Your task to perform on an android device: Add apple airpods to the cart on costco, then select checkout. Image 0: 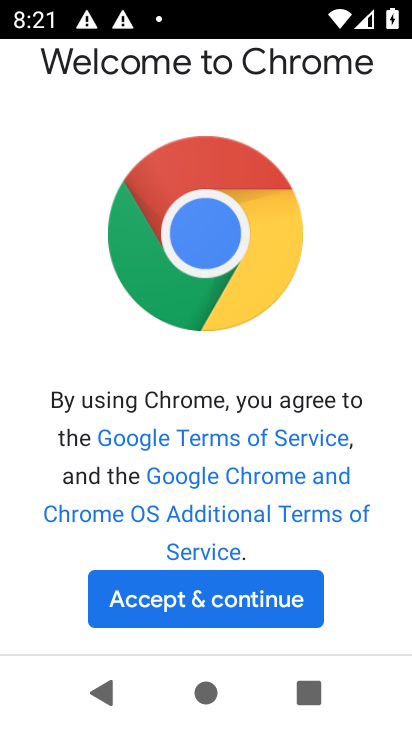
Step 0: click (287, 595)
Your task to perform on an android device: Add apple airpods to the cart on costco, then select checkout. Image 1: 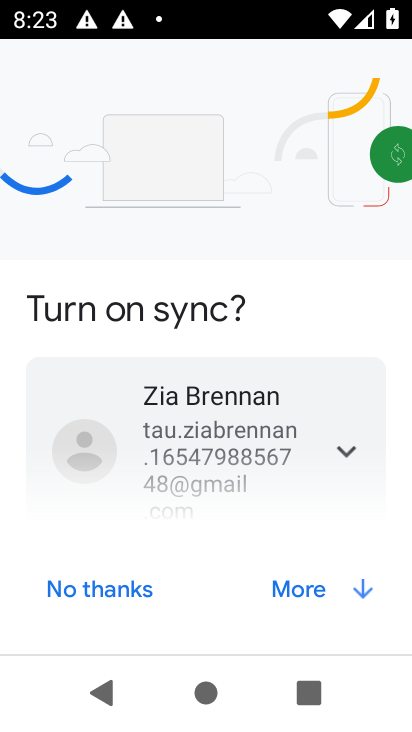
Step 1: click (102, 596)
Your task to perform on an android device: Add apple airpods to the cart on costco, then select checkout. Image 2: 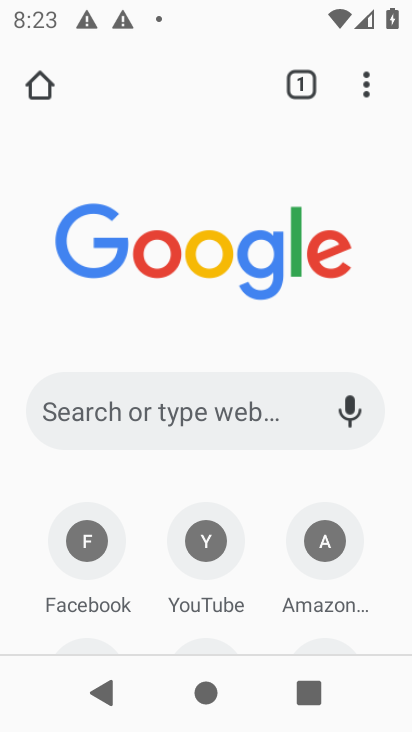
Step 2: task complete